Your task to perform on an android device: turn pop-ups off in chrome Image 0: 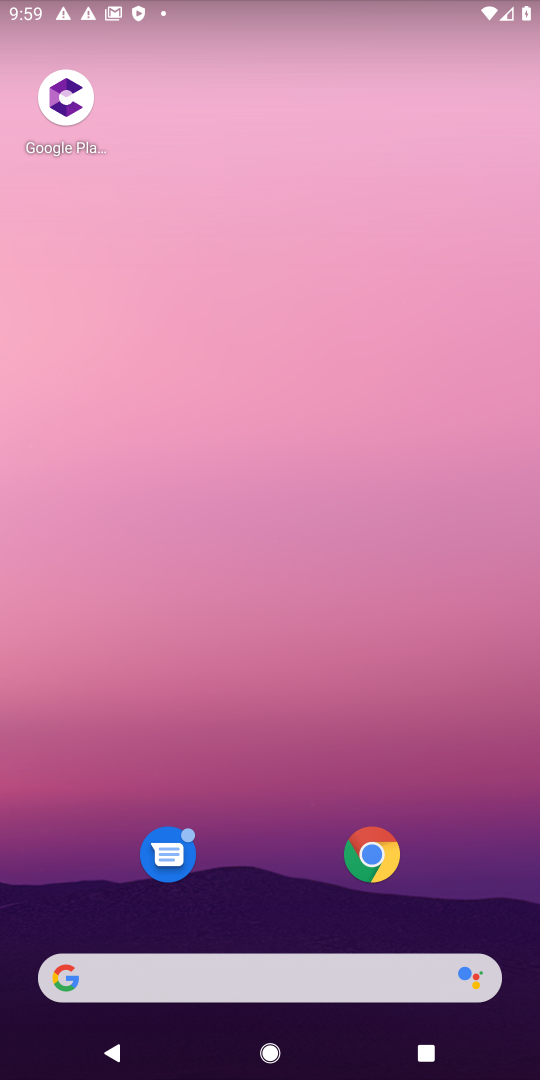
Step 0: drag from (239, 816) to (217, 346)
Your task to perform on an android device: turn pop-ups off in chrome Image 1: 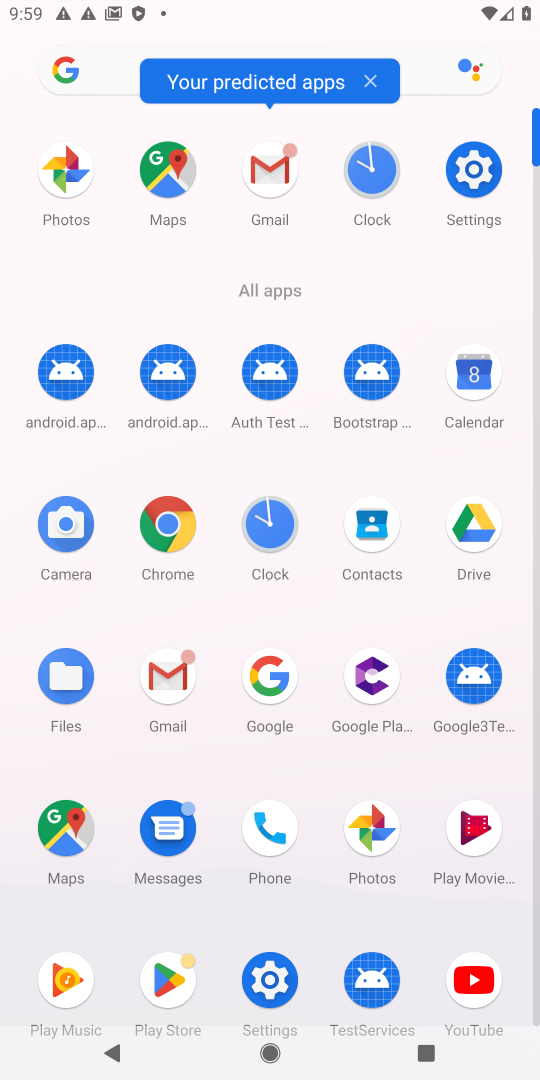
Step 1: click (174, 536)
Your task to perform on an android device: turn pop-ups off in chrome Image 2: 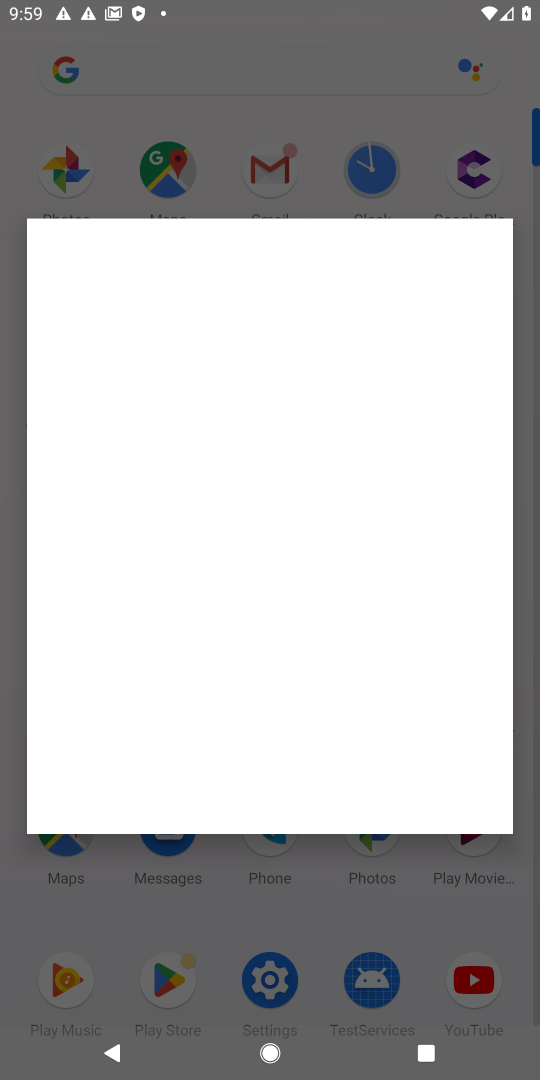
Step 2: task complete